Your task to perform on an android device: Go to Android settings Image 0: 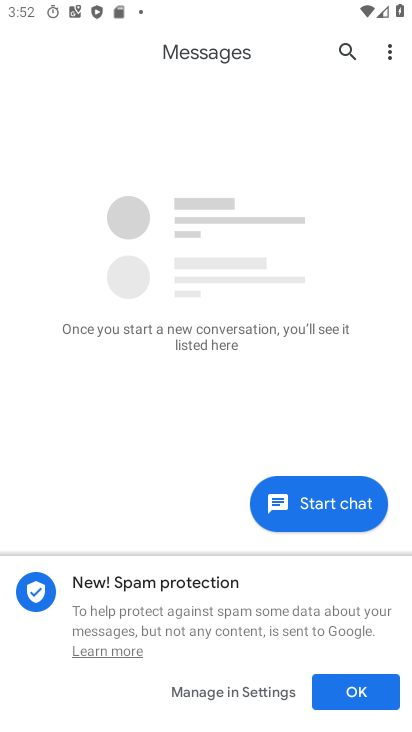
Step 0: press home button
Your task to perform on an android device: Go to Android settings Image 1: 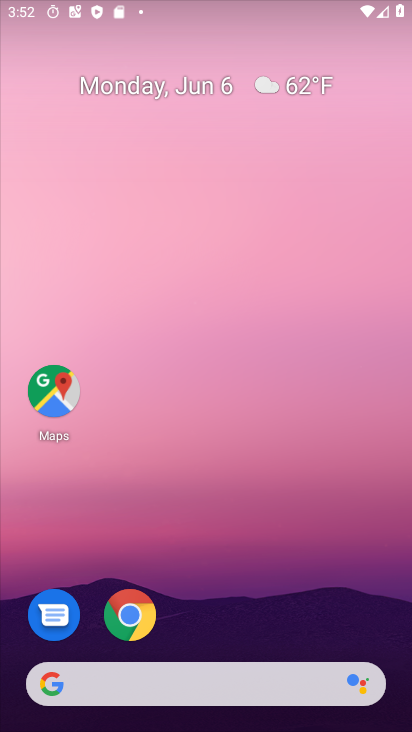
Step 1: click (214, 57)
Your task to perform on an android device: Go to Android settings Image 2: 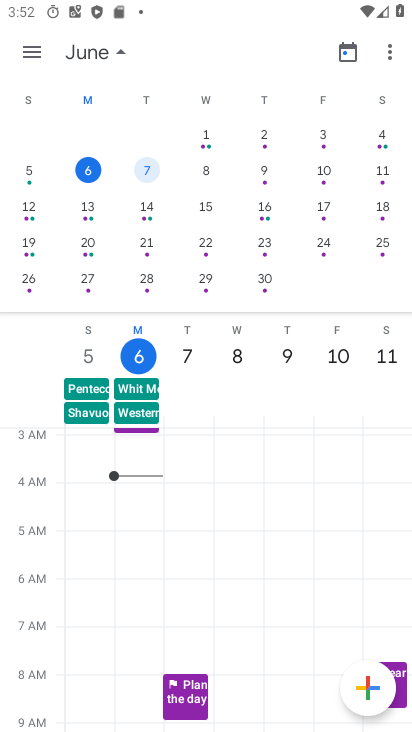
Step 2: press home button
Your task to perform on an android device: Go to Android settings Image 3: 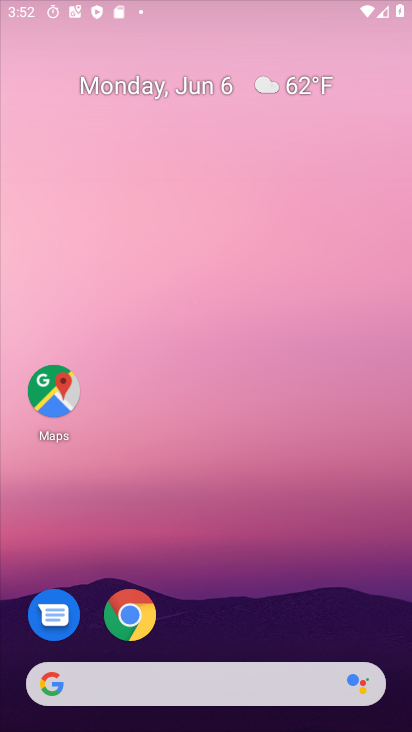
Step 3: drag from (249, 701) to (235, 32)
Your task to perform on an android device: Go to Android settings Image 4: 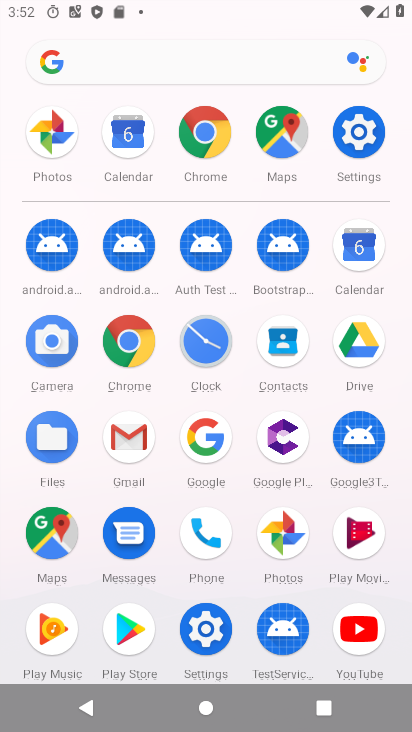
Step 4: click (362, 127)
Your task to perform on an android device: Go to Android settings Image 5: 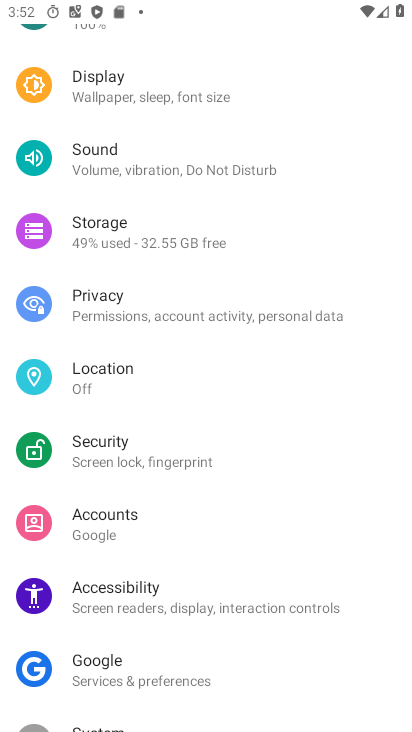
Step 5: drag from (212, 726) to (236, 414)
Your task to perform on an android device: Go to Android settings Image 6: 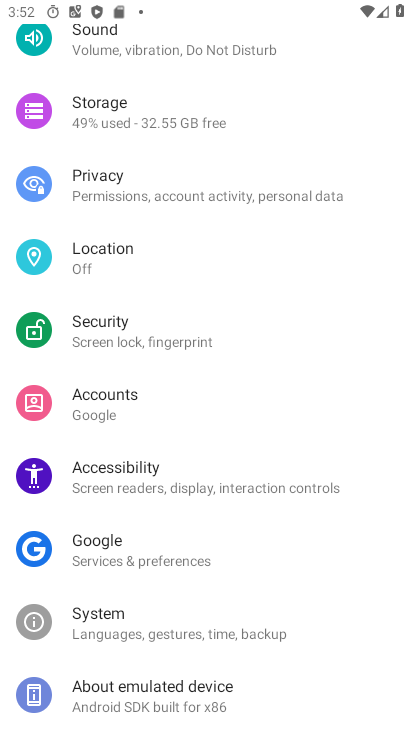
Step 6: click (224, 702)
Your task to perform on an android device: Go to Android settings Image 7: 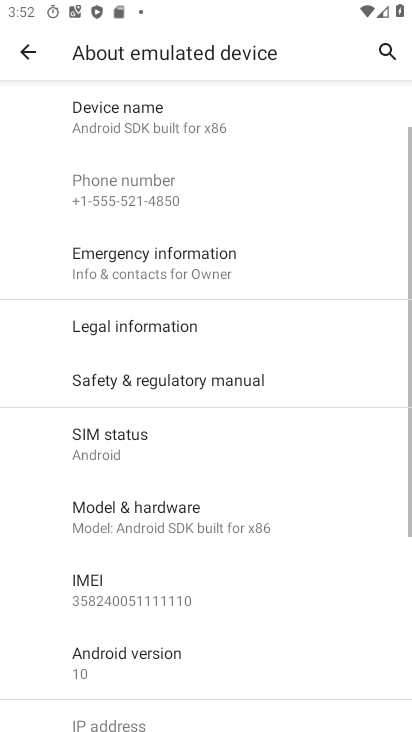
Step 7: drag from (256, 702) to (270, 336)
Your task to perform on an android device: Go to Android settings Image 8: 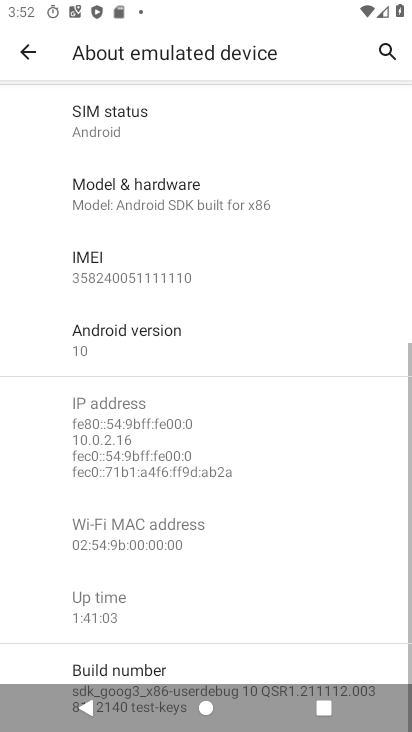
Step 8: click (200, 346)
Your task to perform on an android device: Go to Android settings Image 9: 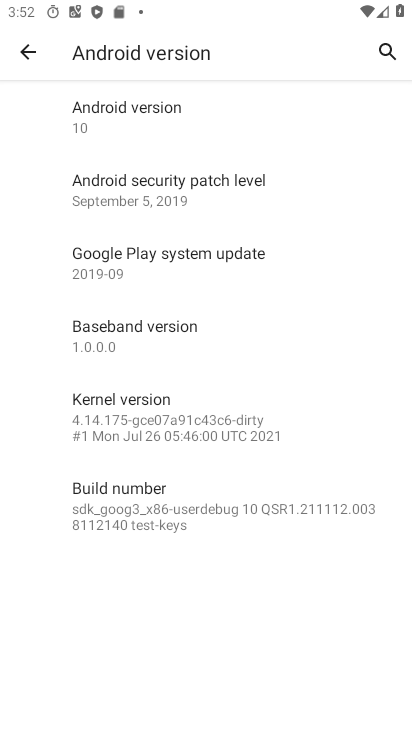
Step 9: task complete